Your task to perform on an android device: toggle data saver in the chrome app Image 0: 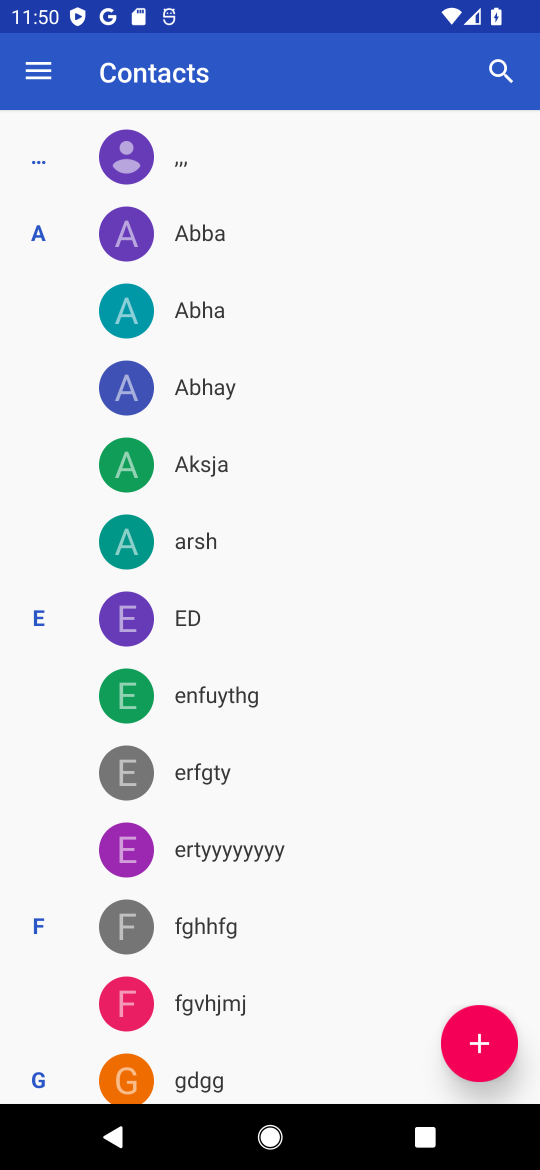
Step 0: press home button
Your task to perform on an android device: toggle data saver in the chrome app Image 1: 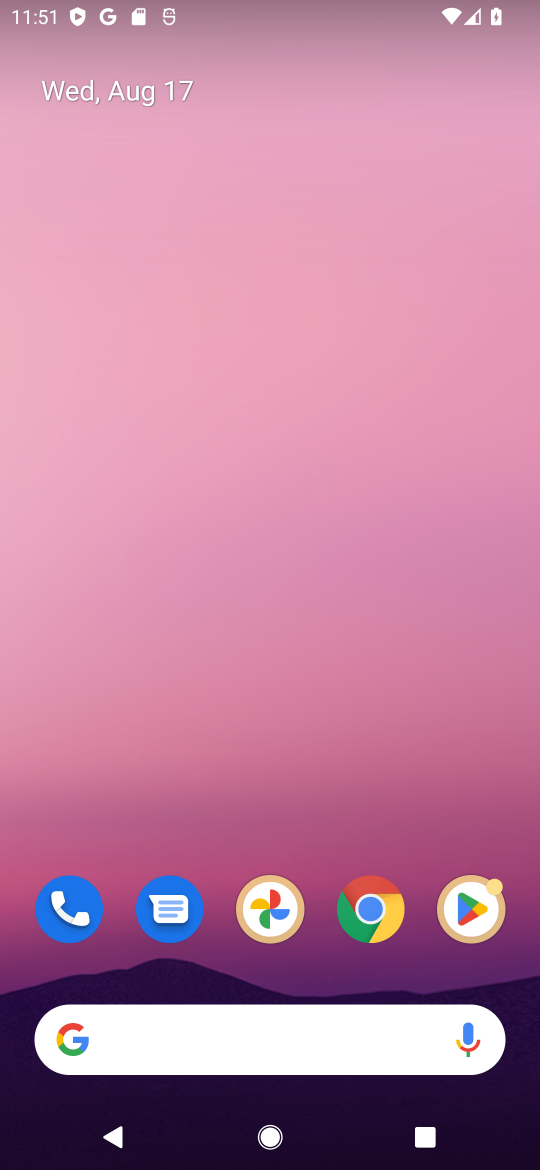
Step 1: click (373, 910)
Your task to perform on an android device: toggle data saver in the chrome app Image 2: 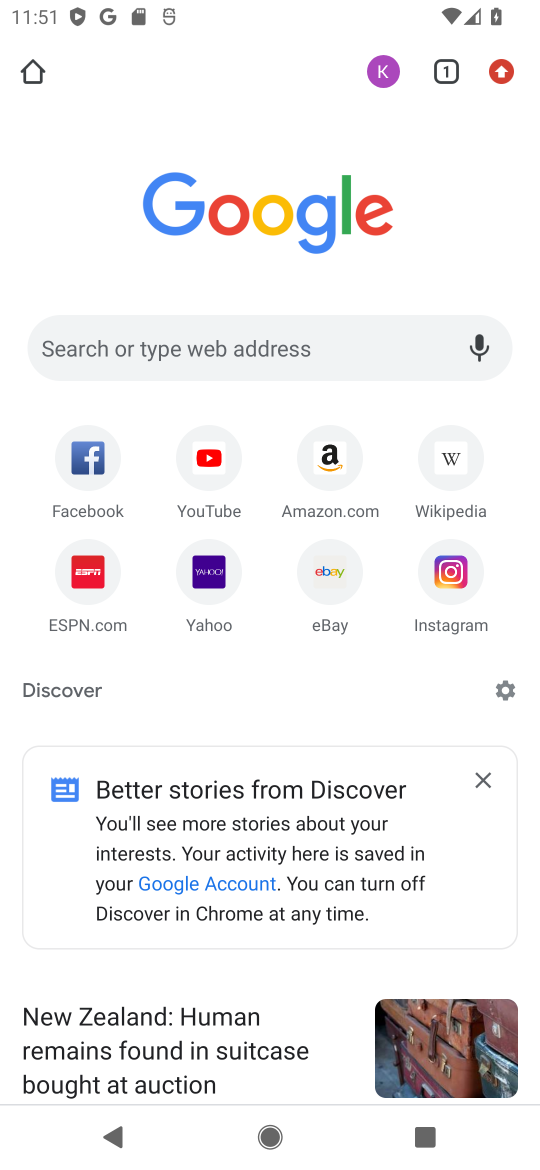
Step 2: click (501, 67)
Your task to perform on an android device: toggle data saver in the chrome app Image 3: 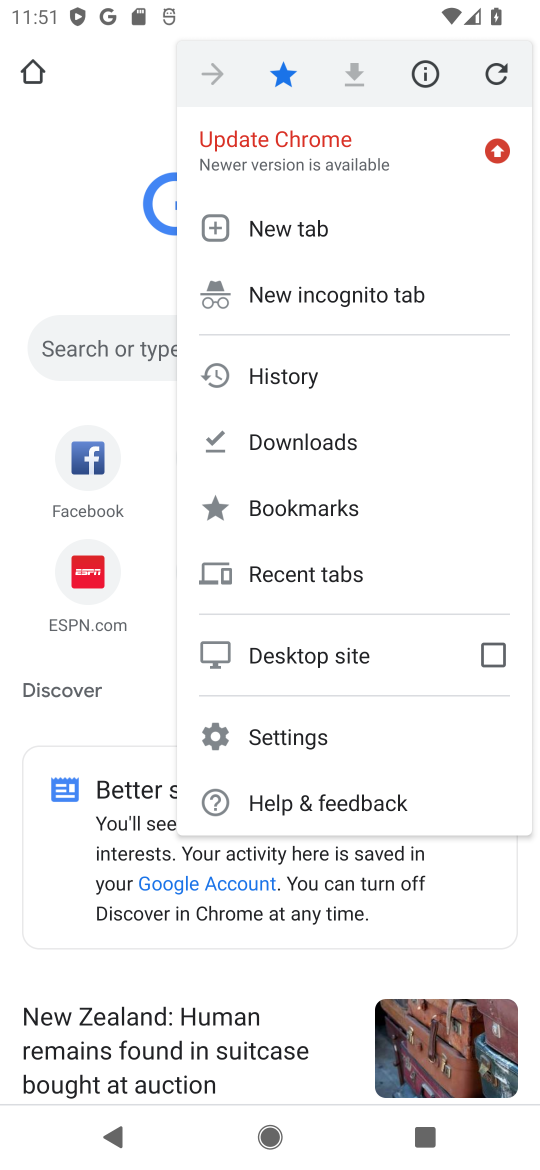
Step 3: click (297, 738)
Your task to perform on an android device: toggle data saver in the chrome app Image 4: 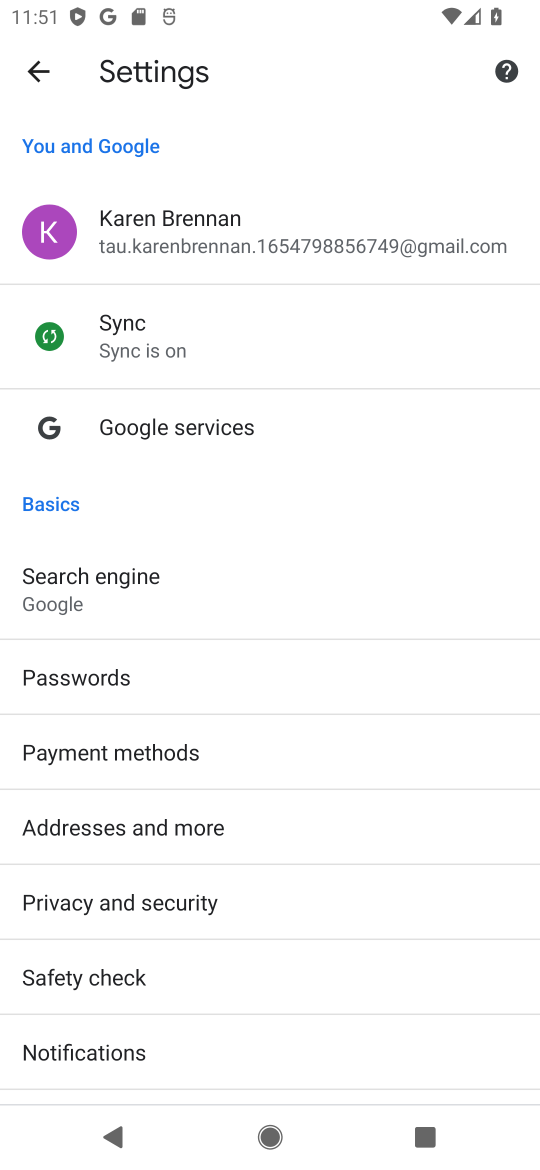
Step 4: drag from (275, 982) to (237, 452)
Your task to perform on an android device: toggle data saver in the chrome app Image 5: 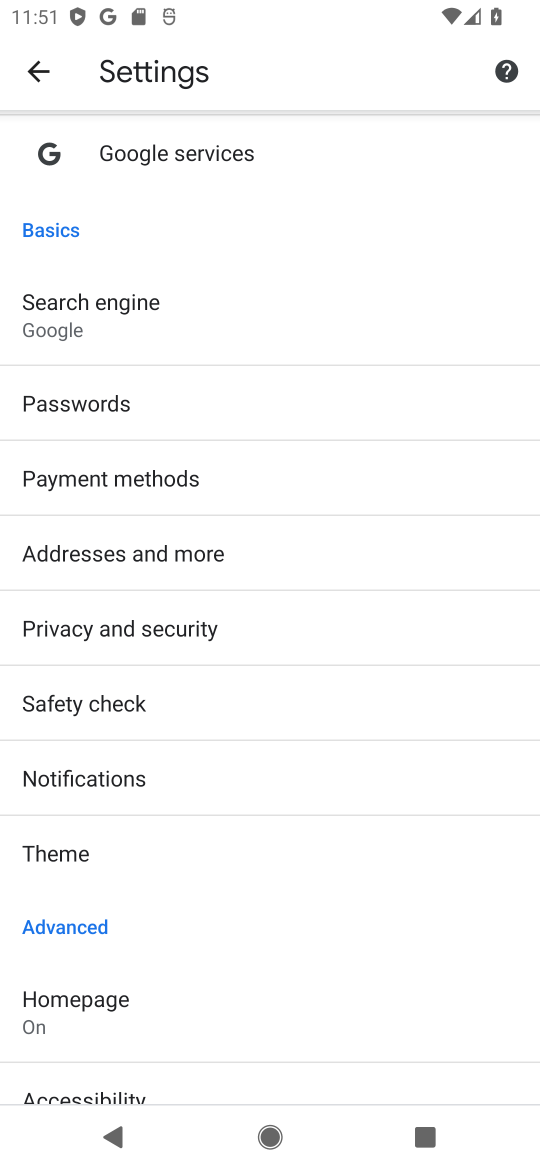
Step 5: drag from (269, 962) to (269, 306)
Your task to perform on an android device: toggle data saver in the chrome app Image 6: 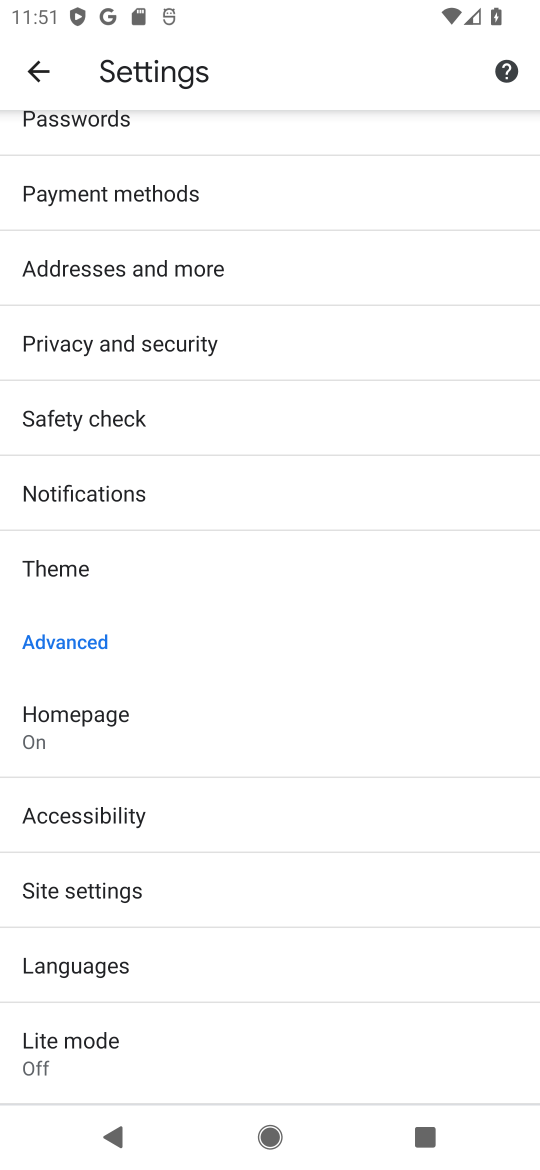
Step 6: click (92, 1034)
Your task to perform on an android device: toggle data saver in the chrome app Image 7: 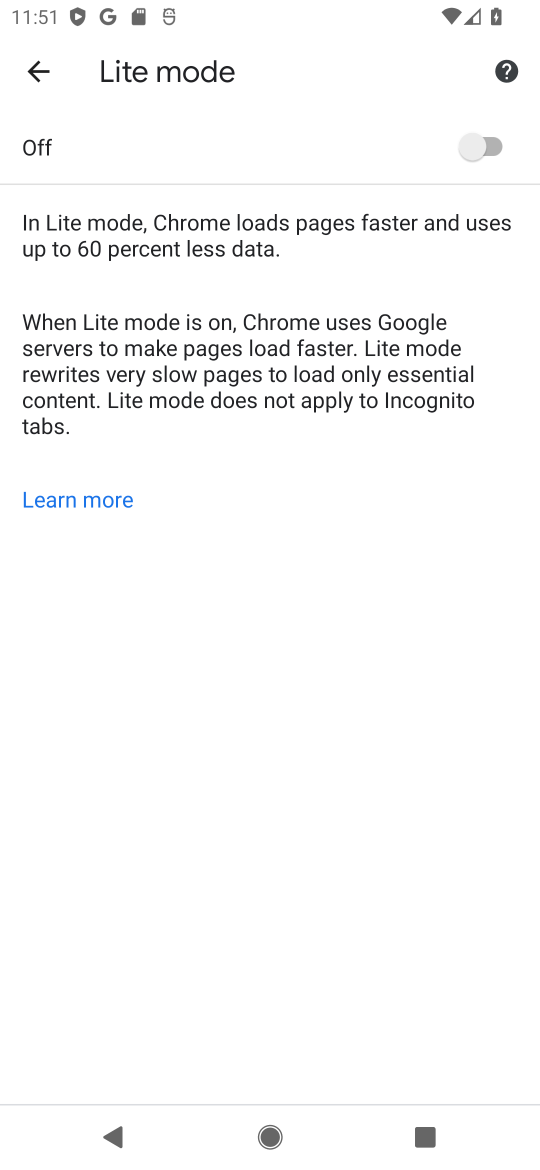
Step 7: click (474, 145)
Your task to perform on an android device: toggle data saver in the chrome app Image 8: 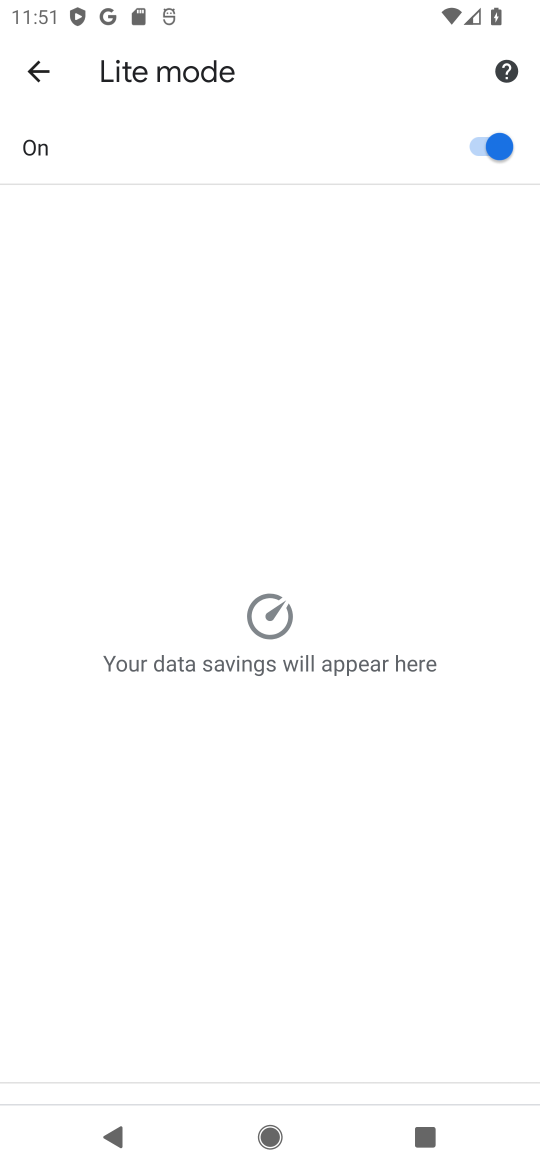
Step 8: task complete